Your task to perform on an android device: uninstall "Gmail" Image 0: 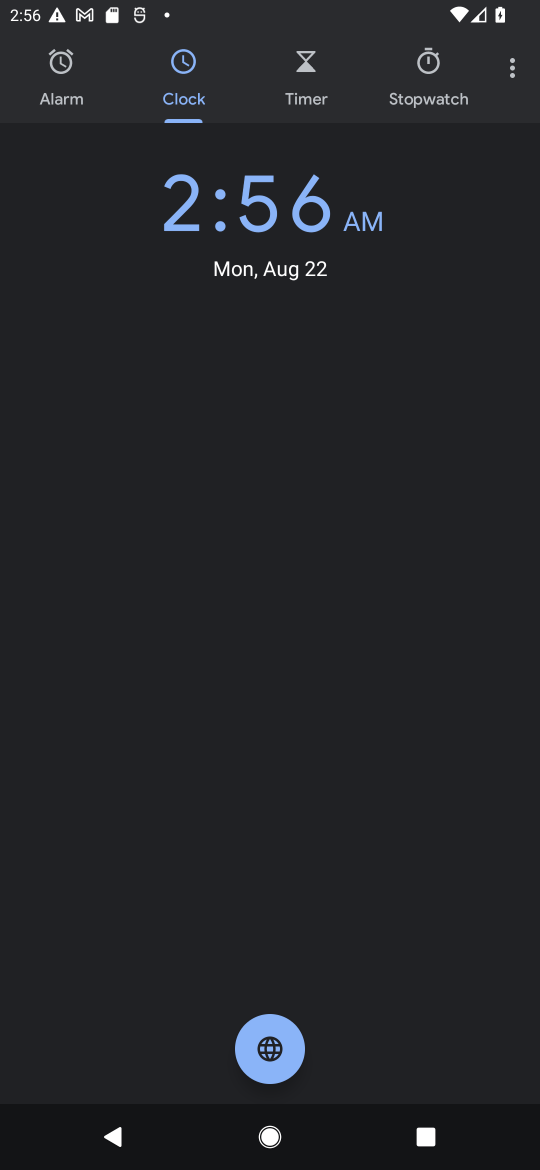
Step 0: press home button
Your task to perform on an android device: uninstall "Gmail" Image 1: 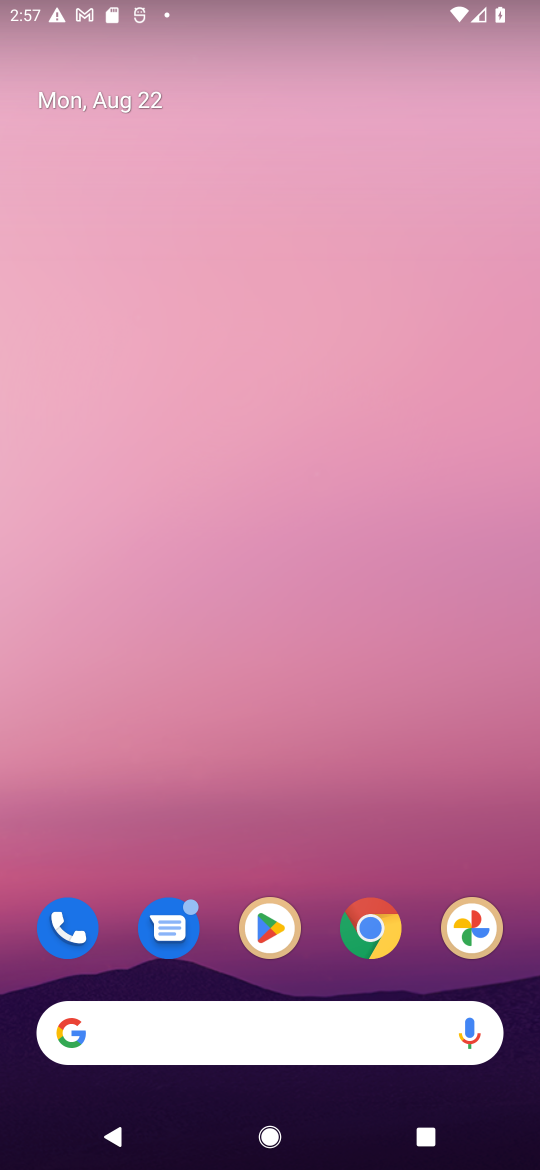
Step 1: click (276, 923)
Your task to perform on an android device: uninstall "Gmail" Image 2: 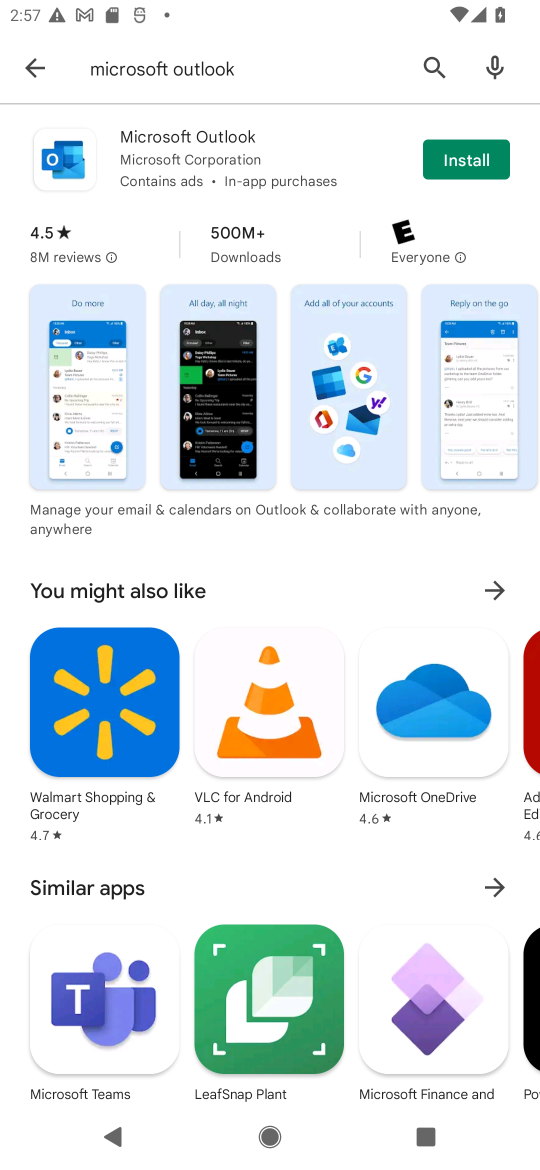
Step 2: click (211, 56)
Your task to perform on an android device: uninstall "Gmail" Image 3: 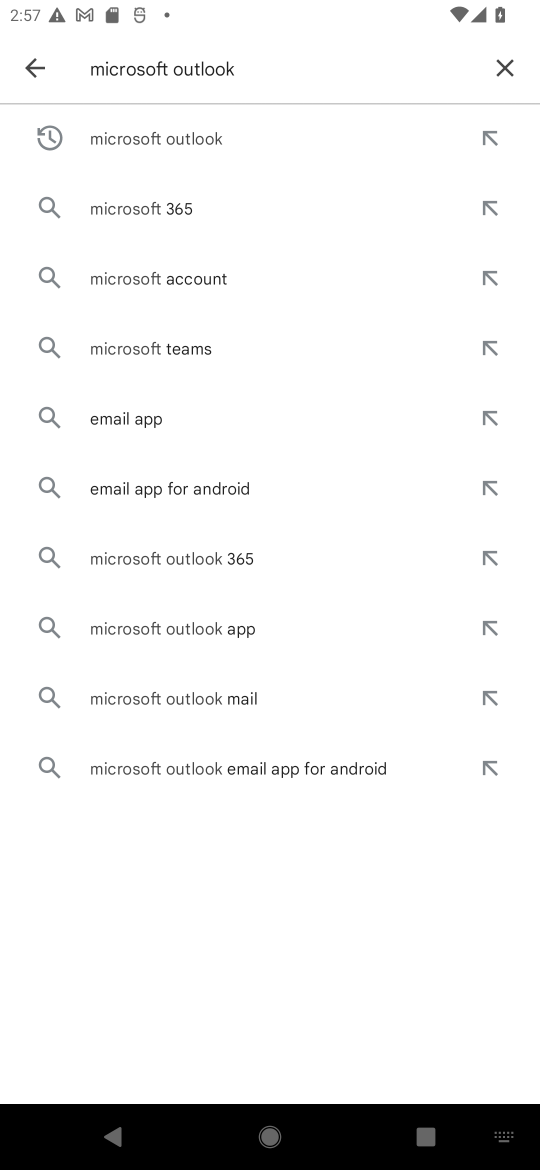
Step 3: click (504, 64)
Your task to perform on an android device: uninstall "Gmail" Image 4: 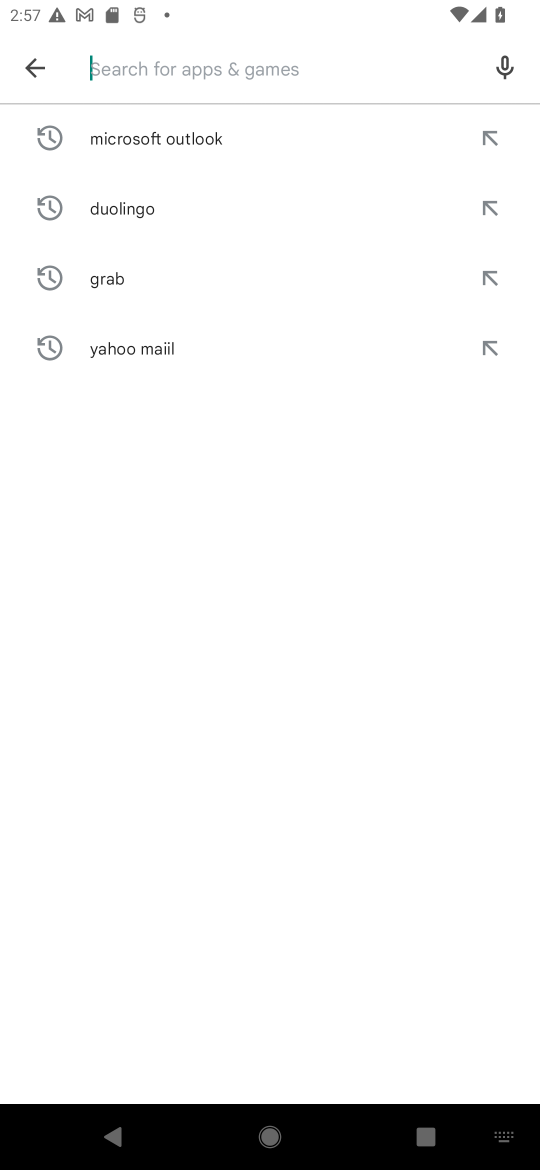
Step 4: type "Gmail'"
Your task to perform on an android device: uninstall "Gmail" Image 5: 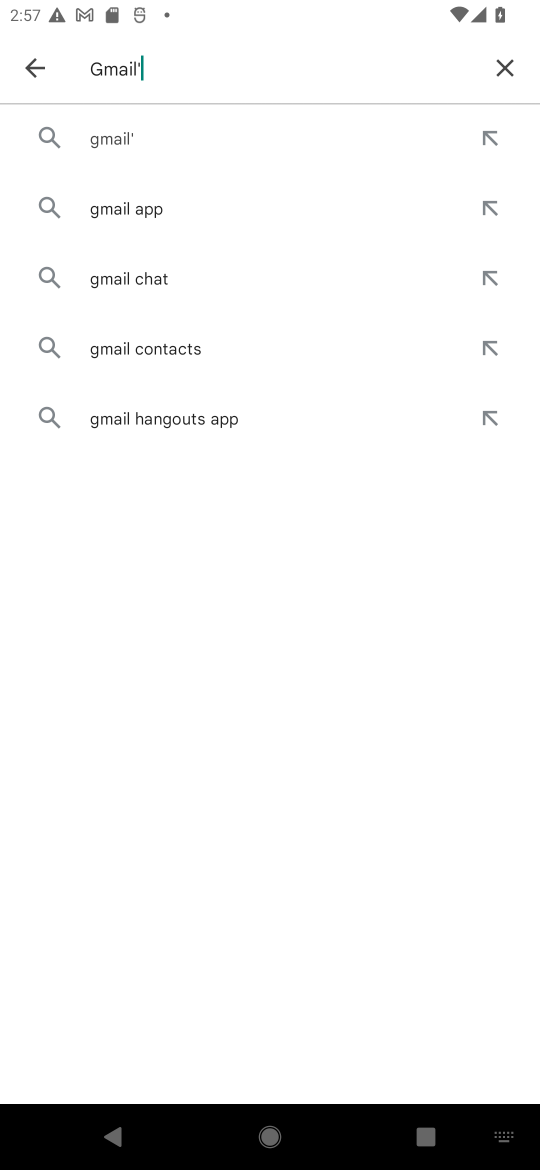
Step 5: click (97, 227)
Your task to perform on an android device: uninstall "Gmail" Image 6: 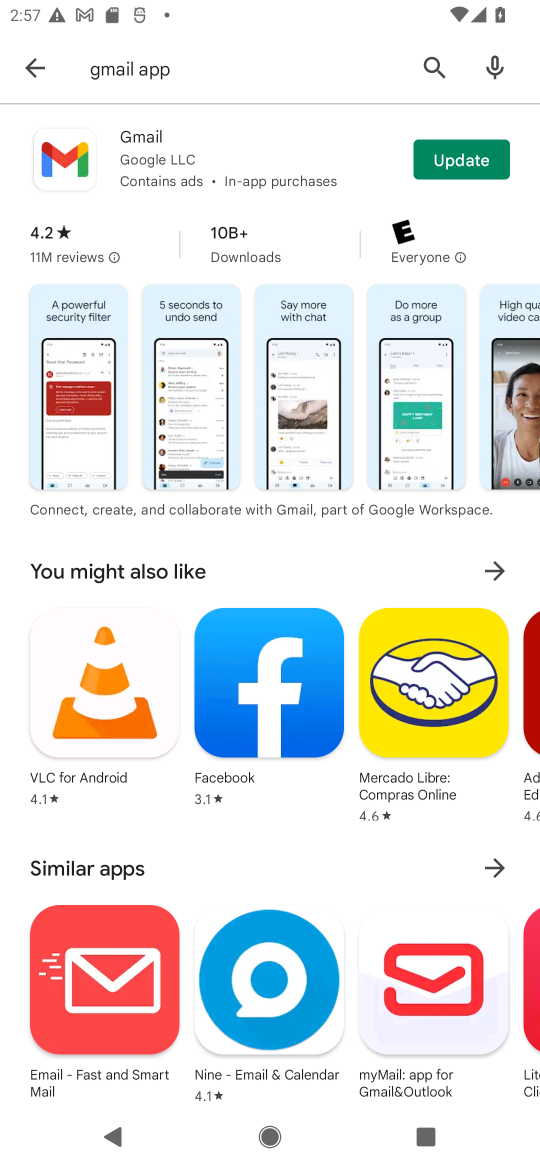
Step 6: click (166, 154)
Your task to perform on an android device: uninstall "Gmail" Image 7: 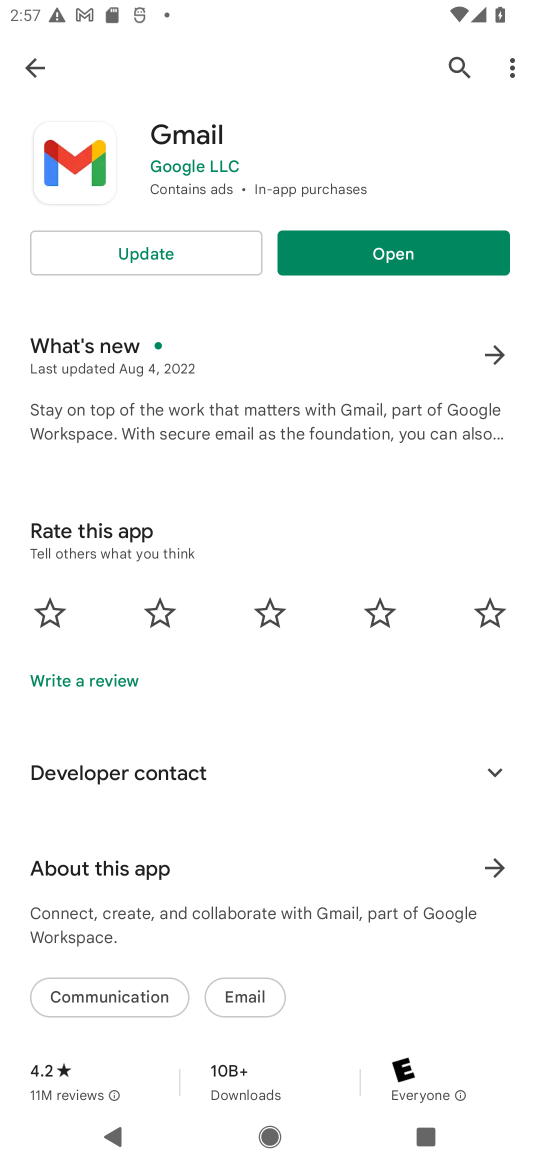
Step 7: task complete